Your task to perform on an android device: Go to battery settings Image 0: 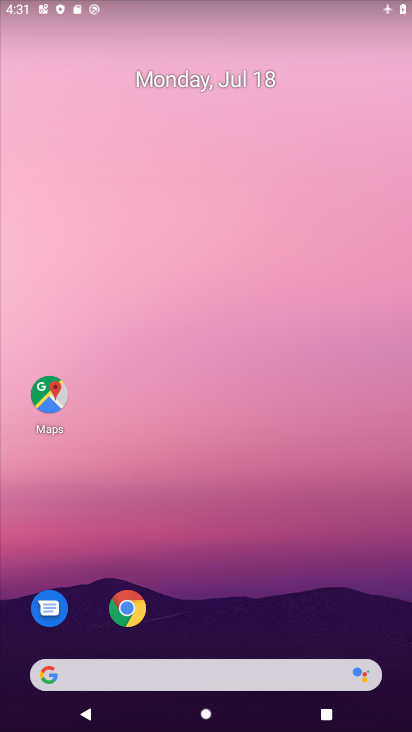
Step 0: drag from (309, 559) to (307, 107)
Your task to perform on an android device: Go to battery settings Image 1: 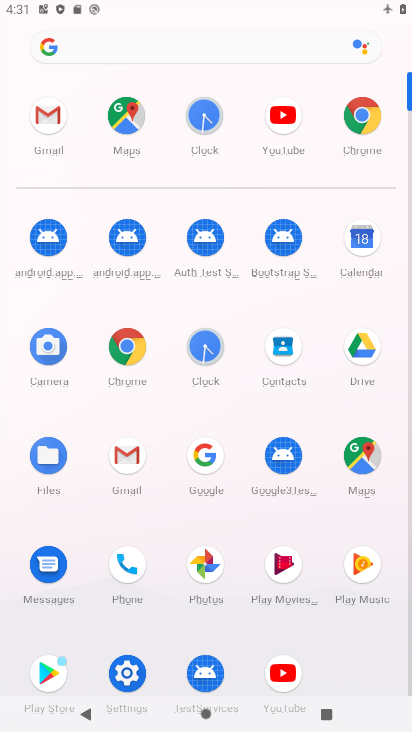
Step 1: click (133, 667)
Your task to perform on an android device: Go to battery settings Image 2: 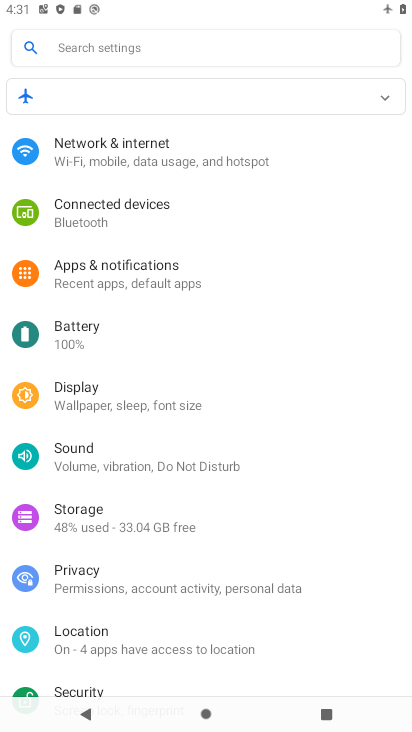
Step 2: click (100, 340)
Your task to perform on an android device: Go to battery settings Image 3: 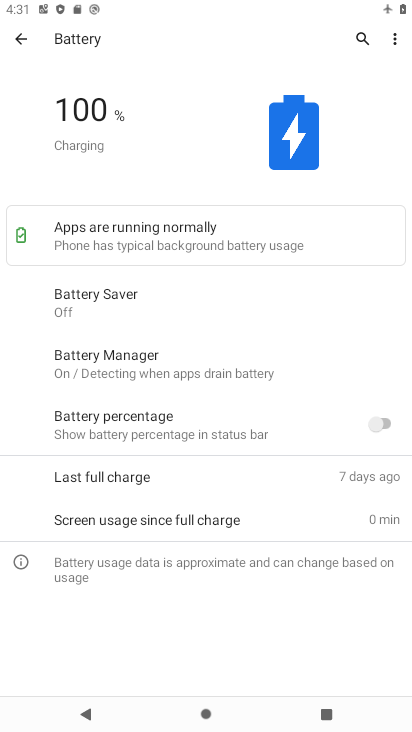
Step 3: task complete